Your task to perform on an android device: toggle translation in the chrome app Image 0: 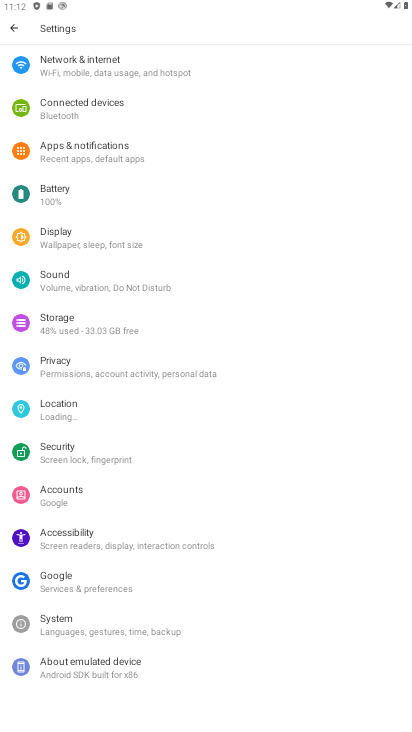
Step 0: press home button
Your task to perform on an android device: toggle translation in the chrome app Image 1: 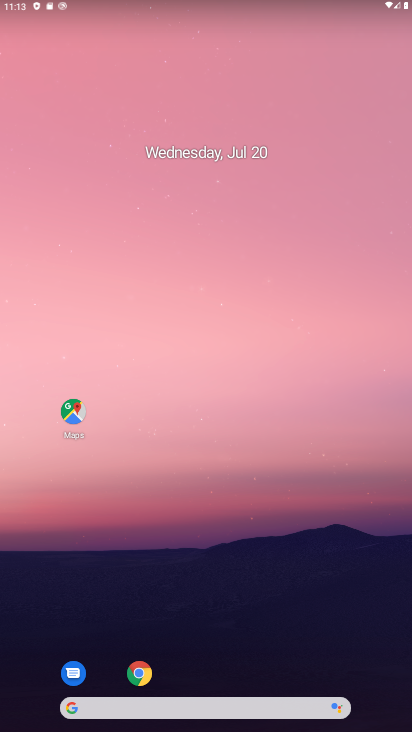
Step 1: click (149, 667)
Your task to perform on an android device: toggle translation in the chrome app Image 2: 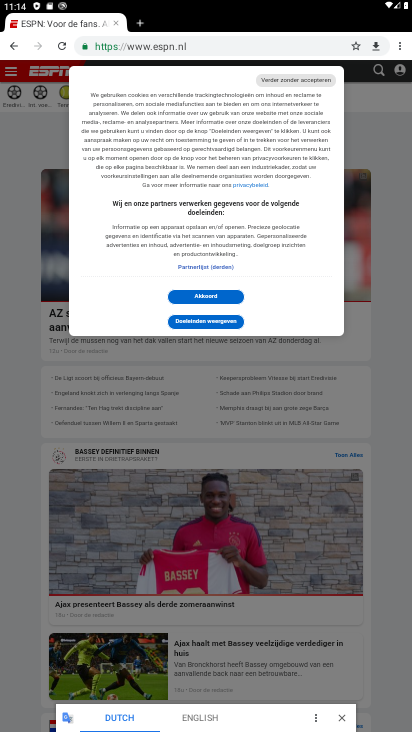
Step 2: drag from (402, 46) to (321, 305)
Your task to perform on an android device: toggle translation in the chrome app Image 3: 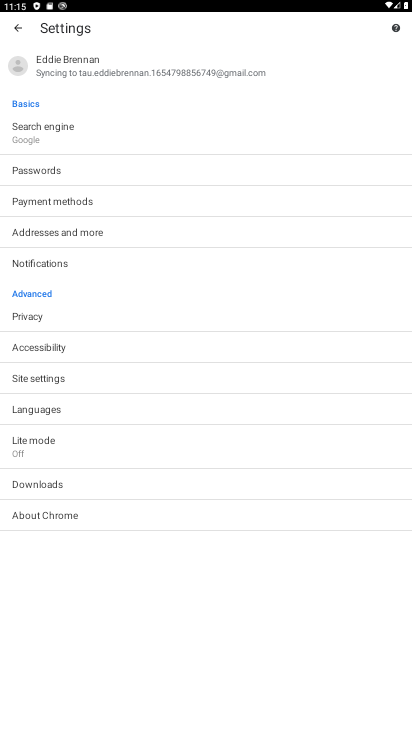
Step 3: click (38, 382)
Your task to perform on an android device: toggle translation in the chrome app Image 4: 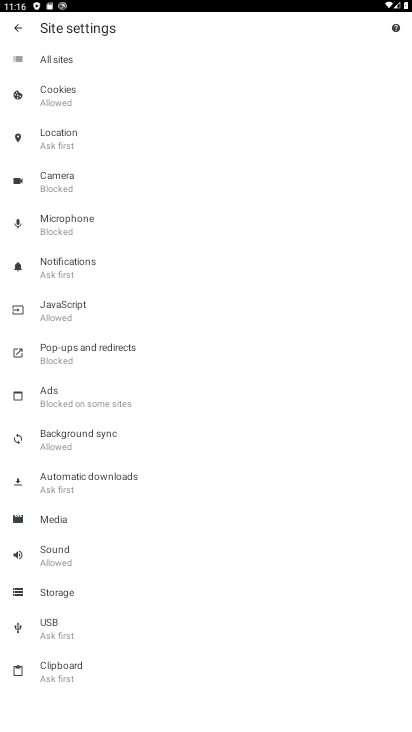
Step 4: click (19, 23)
Your task to perform on an android device: toggle translation in the chrome app Image 5: 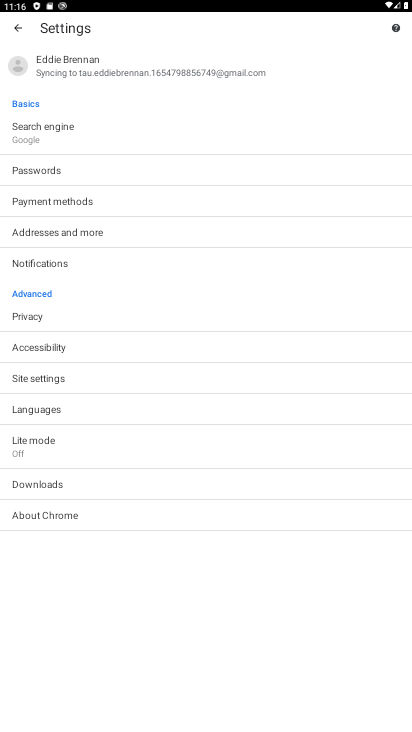
Step 5: click (33, 421)
Your task to perform on an android device: toggle translation in the chrome app Image 6: 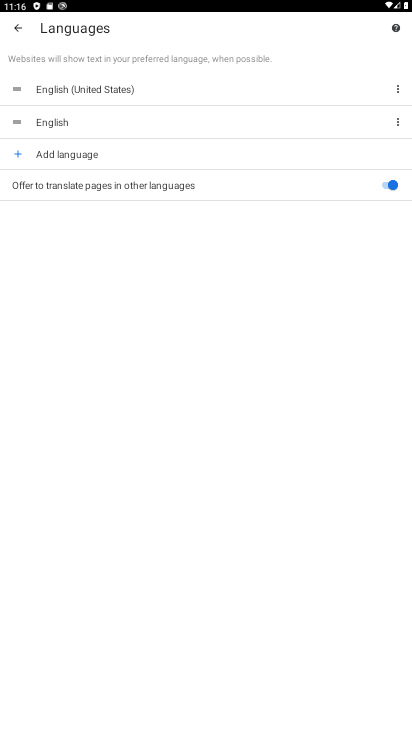
Step 6: click (238, 194)
Your task to perform on an android device: toggle translation in the chrome app Image 7: 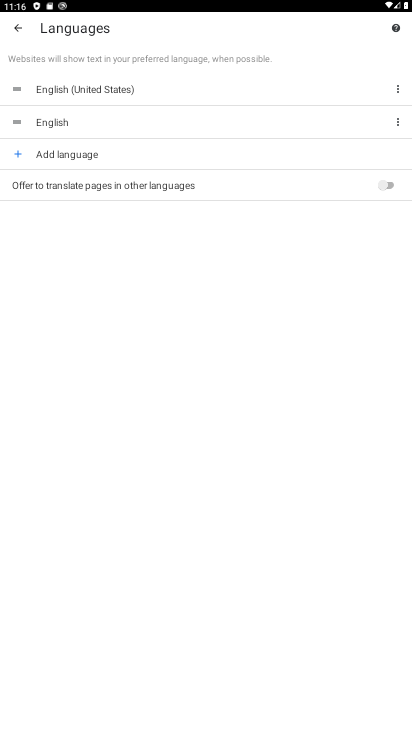
Step 7: task complete